Your task to perform on an android device: Open Youtube and go to the subscriptions tab Image 0: 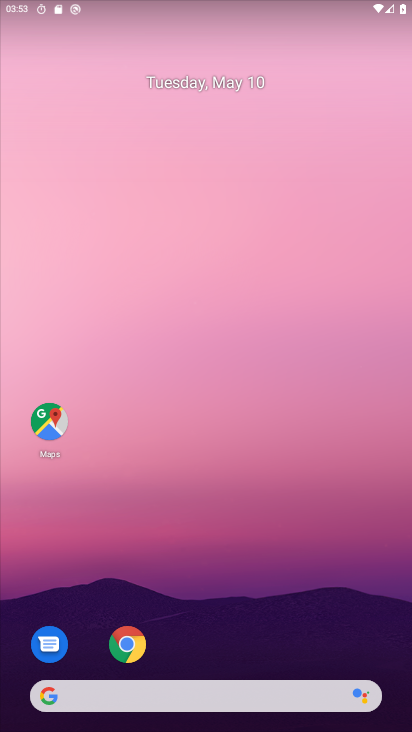
Step 0: drag from (212, 655) to (222, 40)
Your task to perform on an android device: Open Youtube and go to the subscriptions tab Image 1: 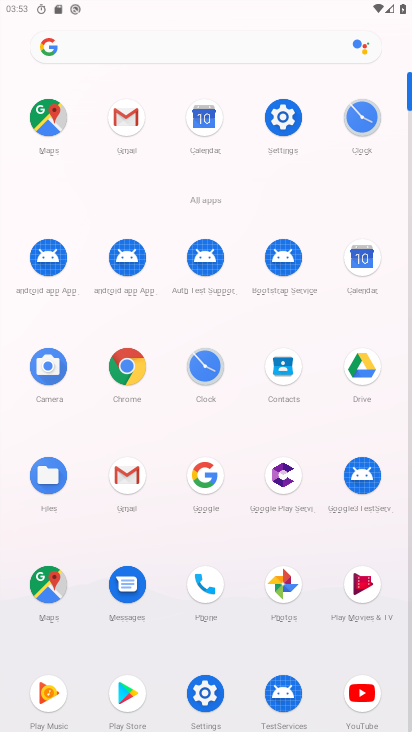
Step 1: click (358, 687)
Your task to perform on an android device: Open Youtube and go to the subscriptions tab Image 2: 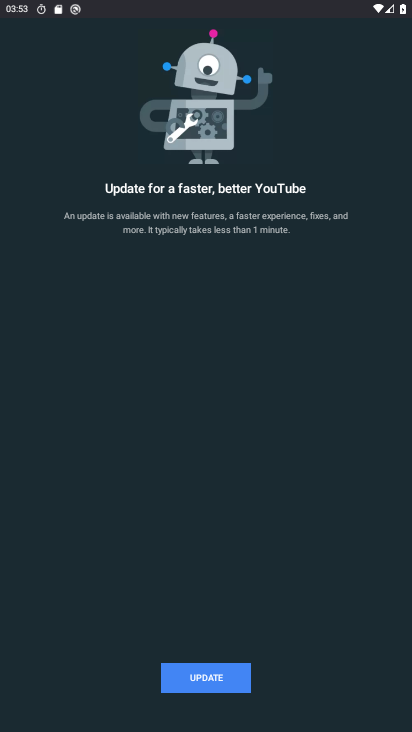
Step 2: click (203, 672)
Your task to perform on an android device: Open Youtube and go to the subscriptions tab Image 3: 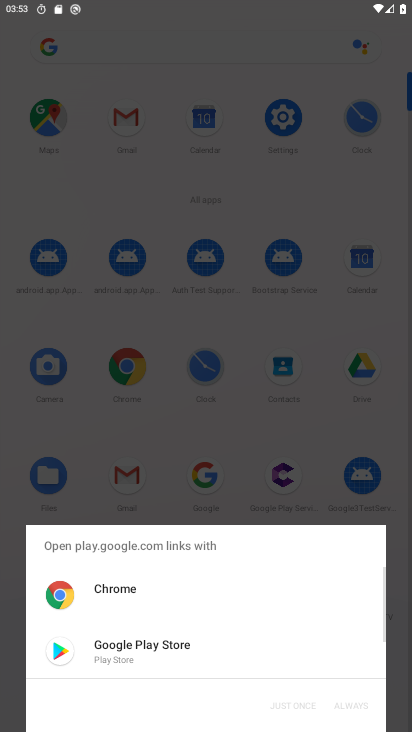
Step 3: click (114, 652)
Your task to perform on an android device: Open Youtube and go to the subscriptions tab Image 4: 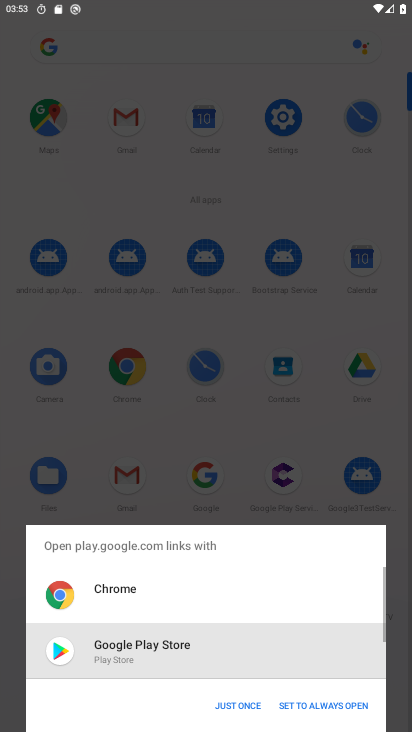
Step 4: click (230, 707)
Your task to perform on an android device: Open Youtube and go to the subscriptions tab Image 5: 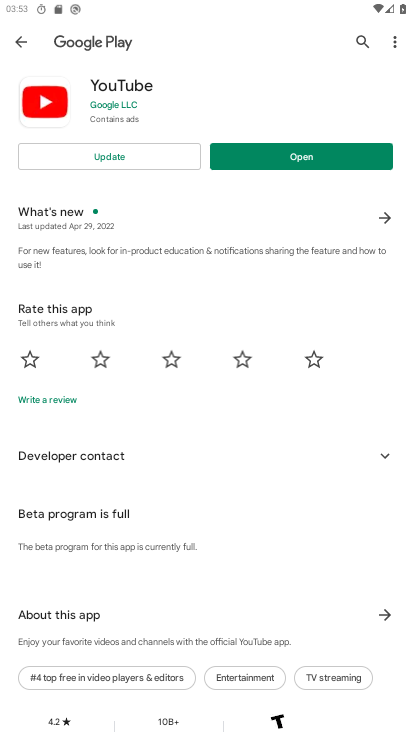
Step 5: click (129, 157)
Your task to perform on an android device: Open Youtube and go to the subscriptions tab Image 6: 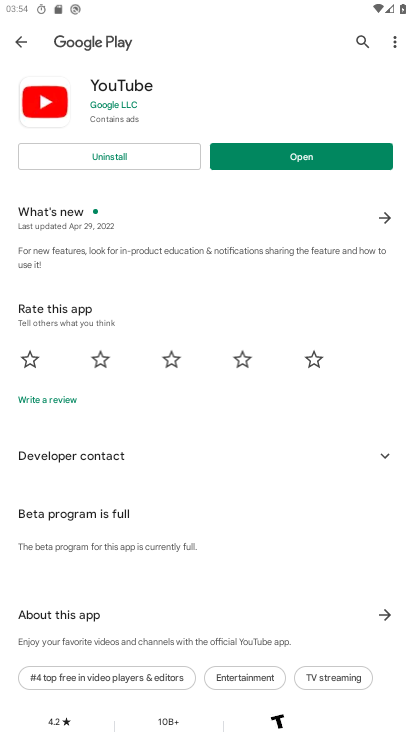
Step 6: click (298, 161)
Your task to perform on an android device: Open Youtube and go to the subscriptions tab Image 7: 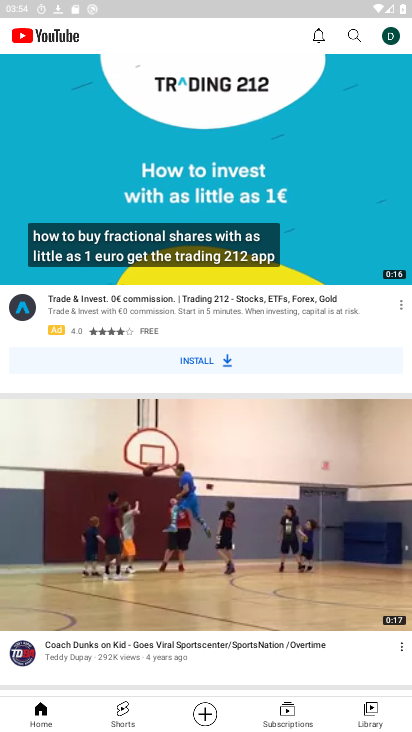
Step 7: drag from (207, 623) to (224, 213)
Your task to perform on an android device: Open Youtube and go to the subscriptions tab Image 8: 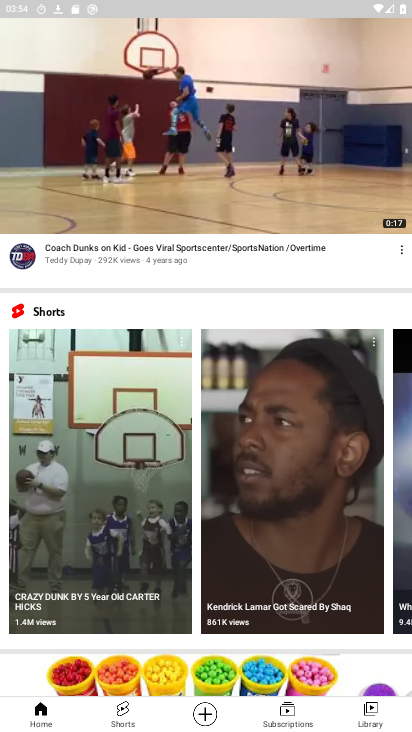
Step 8: click (285, 714)
Your task to perform on an android device: Open Youtube and go to the subscriptions tab Image 9: 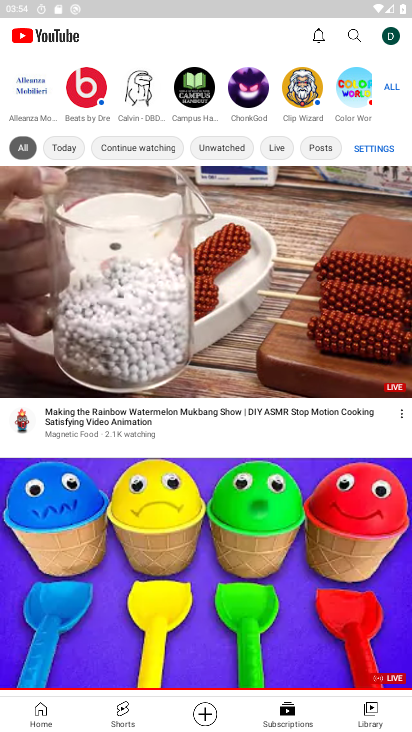
Step 9: task complete